Your task to perform on an android device: Go to battery settings Image 0: 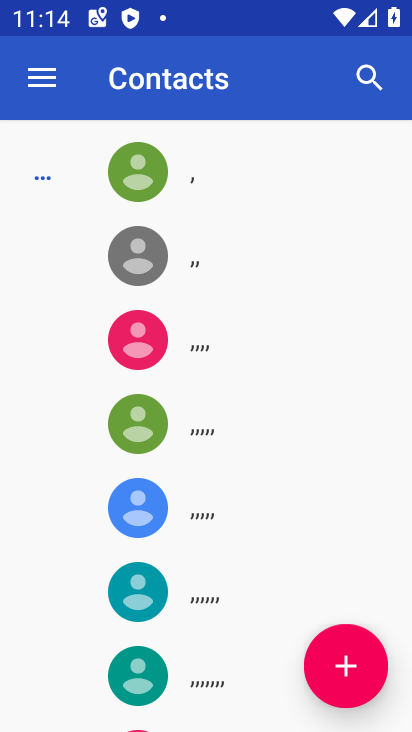
Step 0: press home button
Your task to perform on an android device: Go to battery settings Image 1: 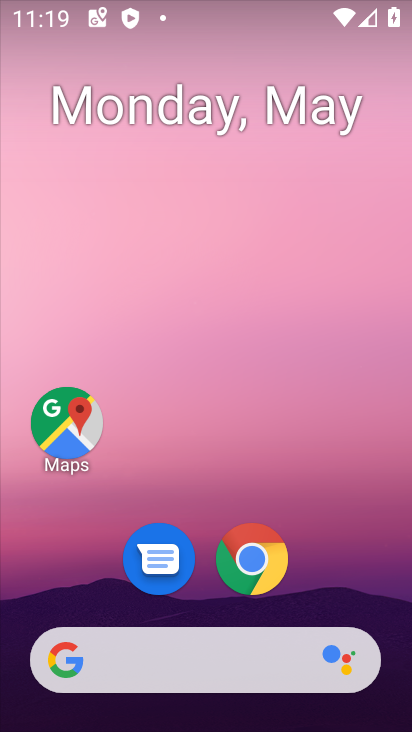
Step 1: drag from (332, 476) to (241, 7)
Your task to perform on an android device: Go to battery settings Image 2: 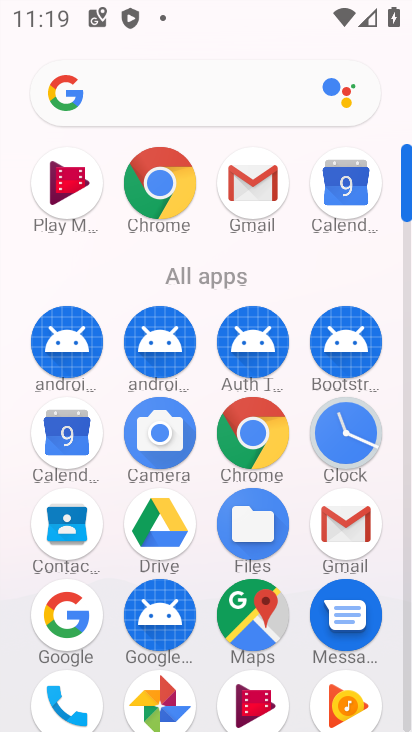
Step 2: drag from (206, 598) to (166, 179)
Your task to perform on an android device: Go to battery settings Image 3: 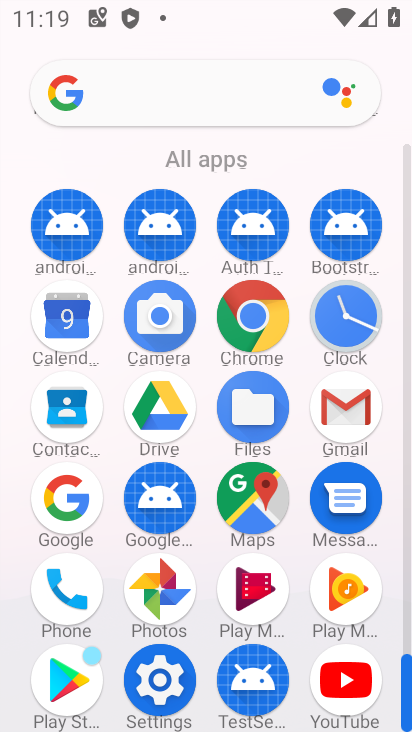
Step 3: click (164, 673)
Your task to perform on an android device: Go to battery settings Image 4: 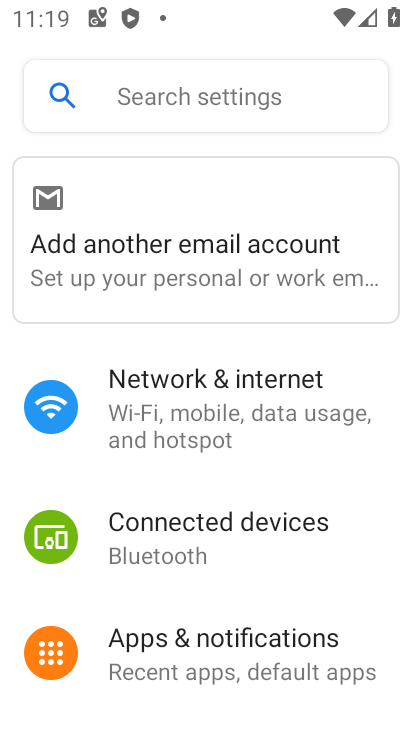
Step 4: drag from (192, 591) to (197, 282)
Your task to perform on an android device: Go to battery settings Image 5: 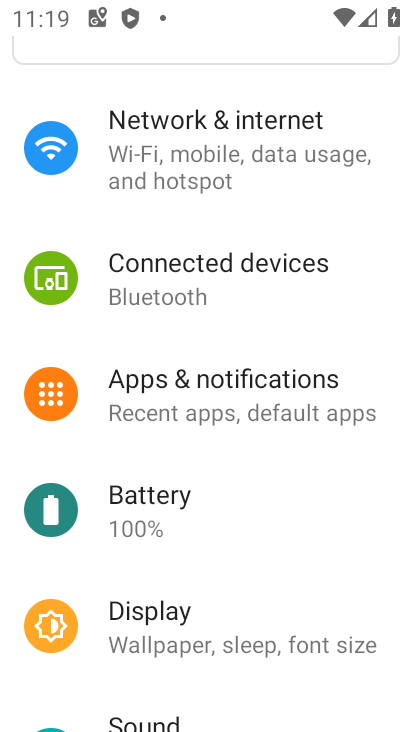
Step 5: click (186, 480)
Your task to perform on an android device: Go to battery settings Image 6: 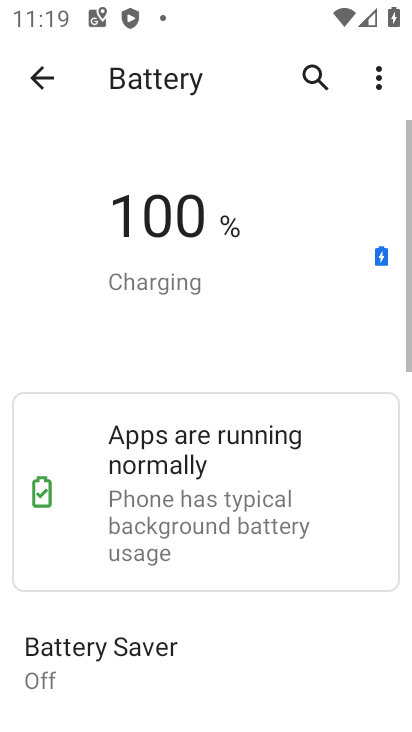
Step 6: task complete